Your task to perform on an android device: change text size in settings app Image 0: 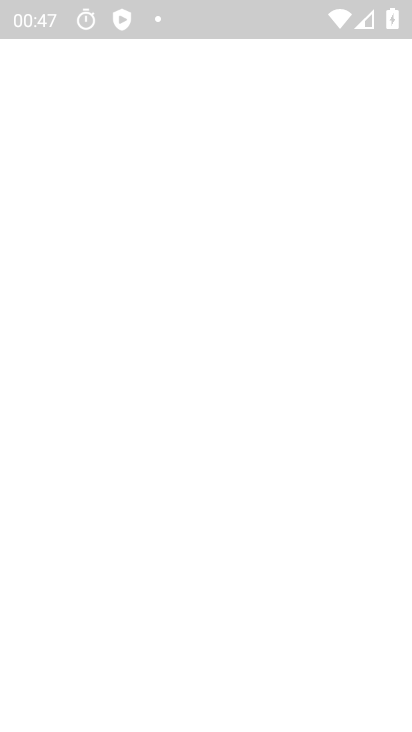
Step 0: drag from (354, 519) to (320, 231)
Your task to perform on an android device: change text size in settings app Image 1: 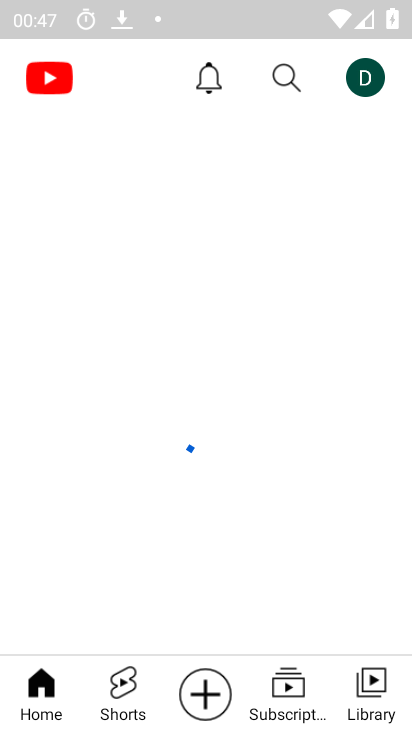
Step 1: press home button
Your task to perform on an android device: change text size in settings app Image 2: 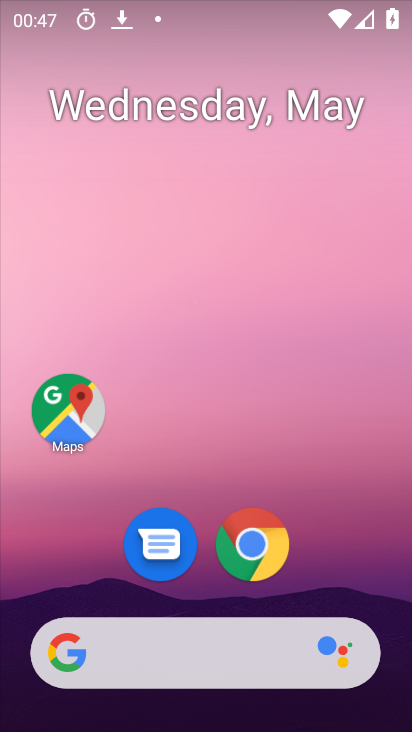
Step 2: drag from (337, 559) to (336, 171)
Your task to perform on an android device: change text size in settings app Image 3: 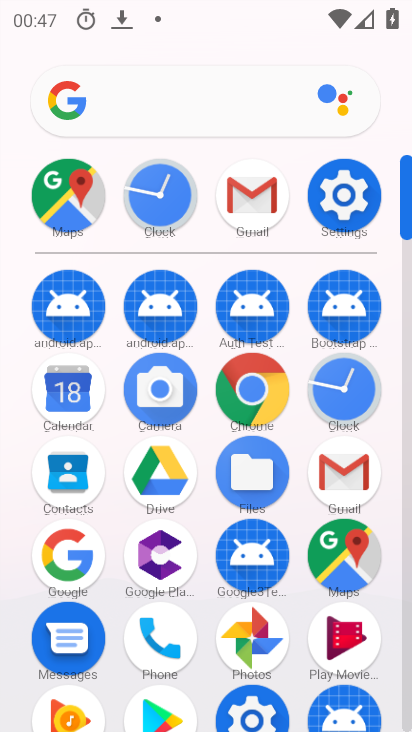
Step 3: click (341, 173)
Your task to perform on an android device: change text size in settings app Image 4: 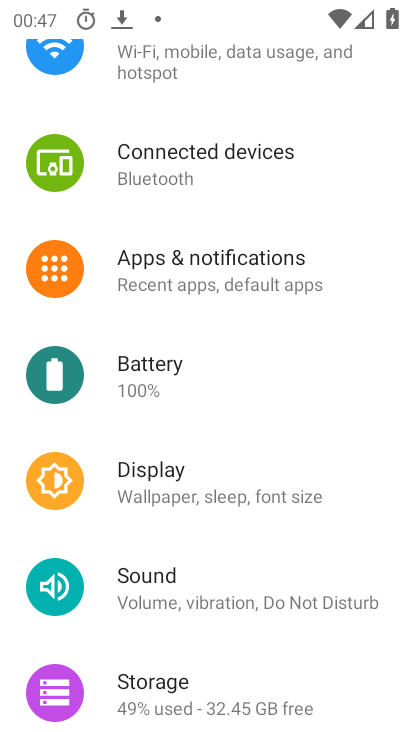
Step 4: drag from (256, 487) to (331, 235)
Your task to perform on an android device: change text size in settings app Image 5: 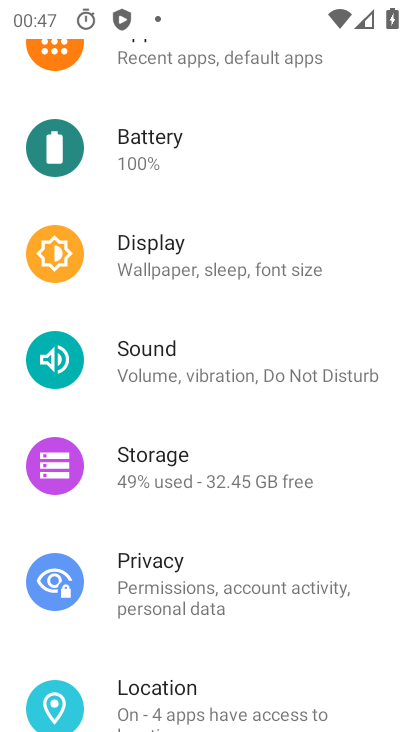
Step 5: drag from (277, 567) to (338, 285)
Your task to perform on an android device: change text size in settings app Image 6: 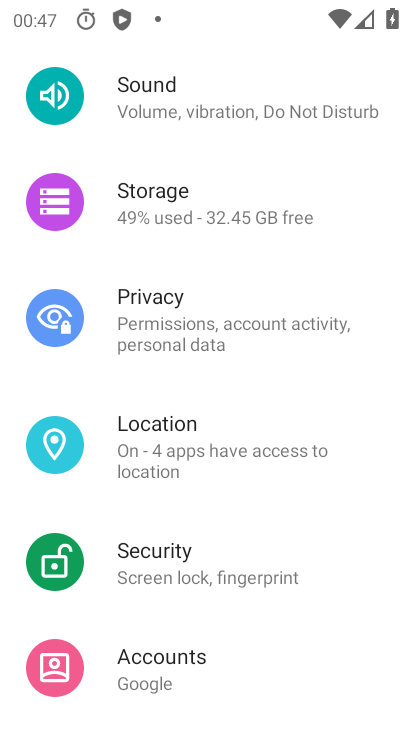
Step 6: drag from (273, 547) to (353, 220)
Your task to perform on an android device: change text size in settings app Image 7: 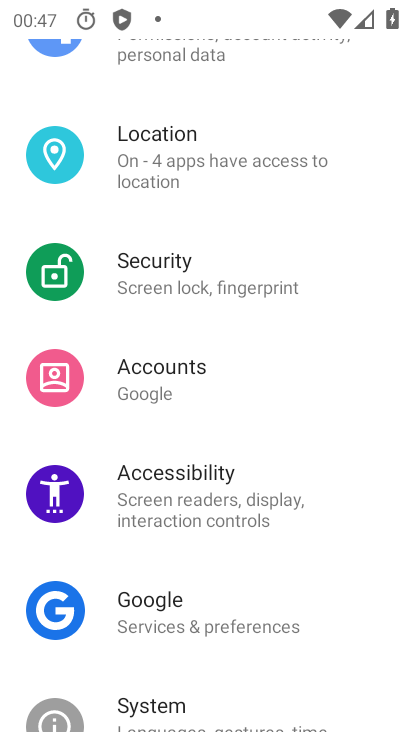
Step 7: drag from (263, 654) to (242, 577)
Your task to perform on an android device: change text size in settings app Image 8: 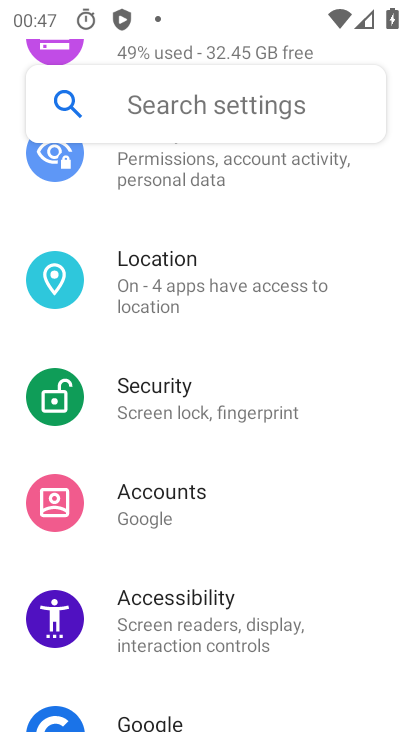
Step 8: drag from (232, 295) to (250, 524)
Your task to perform on an android device: change text size in settings app Image 9: 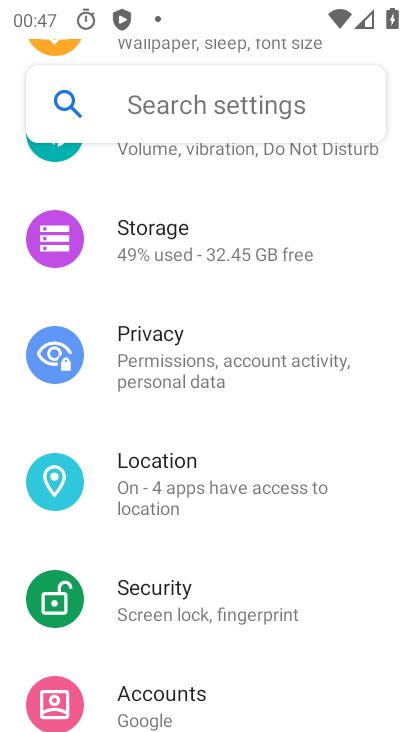
Step 9: drag from (227, 278) to (239, 489)
Your task to perform on an android device: change text size in settings app Image 10: 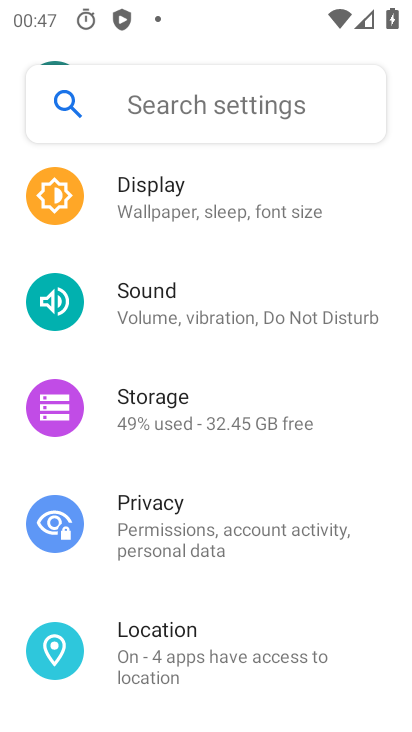
Step 10: click (208, 211)
Your task to perform on an android device: change text size in settings app Image 11: 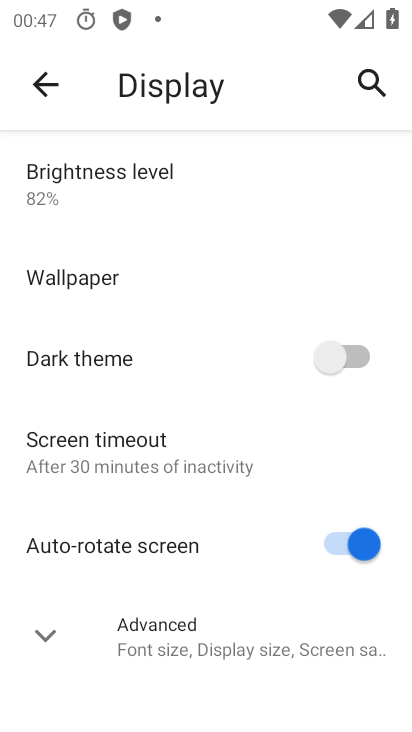
Step 11: drag from (216, 613) to (291, 280)
Your task to perform on an android device: change text size in settings app Image 12: 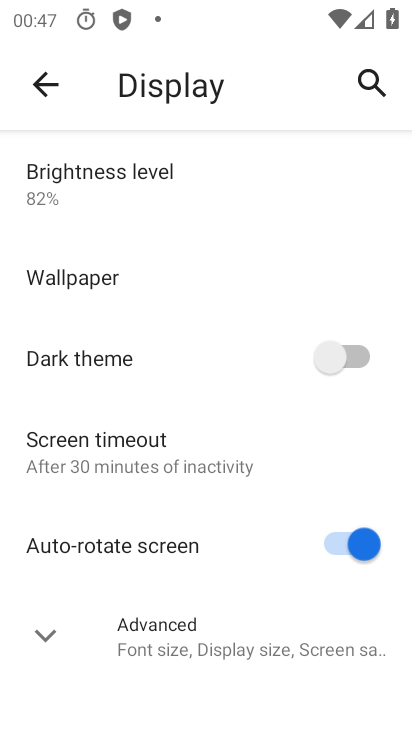
Step 12: click (192, 651)
Your task to perform on an android device: change text size in settings app Image 13: 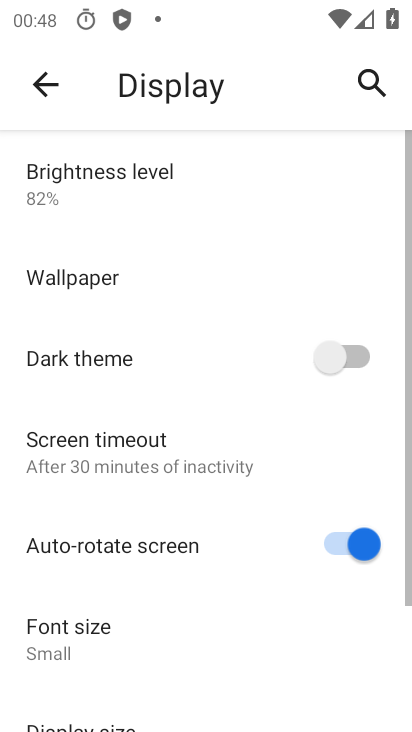
Step 13: drag from (145, 659) to (227, 272)
Your task to perform on an android device: change text size in settings app Image 14: 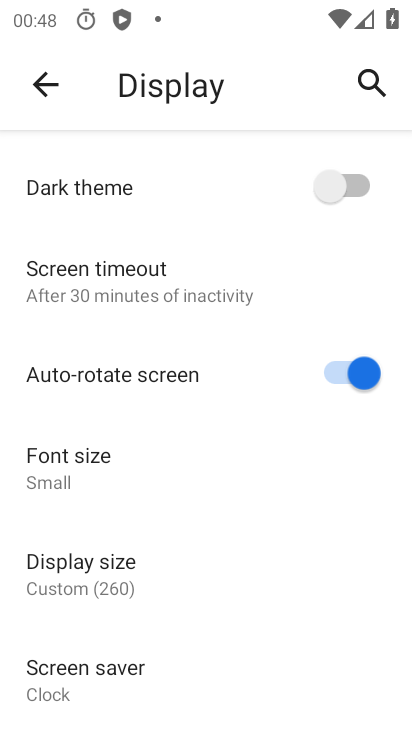
Step 14: click (89, 476)
Your task to perform on an android device: change text size in settings app Image 15: 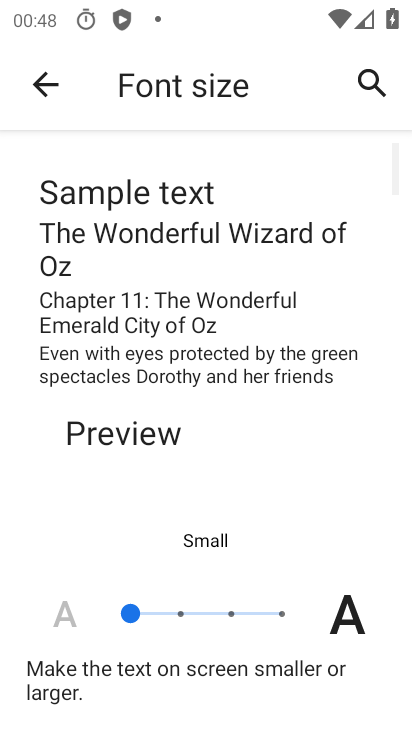
Step 15: click (170, 614)
Your task to perform on an android device: change text size in settings app Image 16: 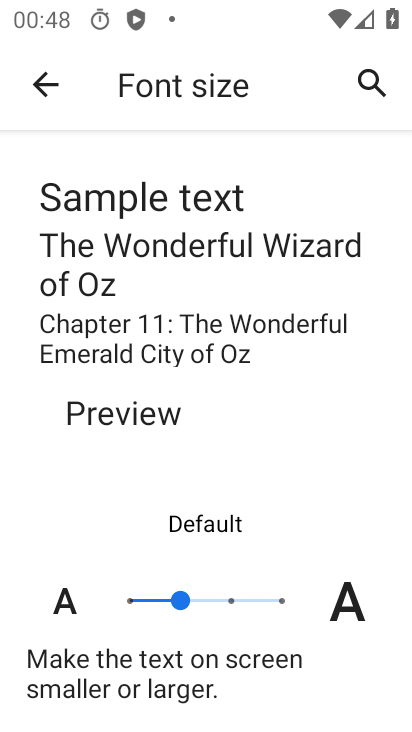
Step 16: task complete